Your task to perform on an android device: set an alarm Image 0: 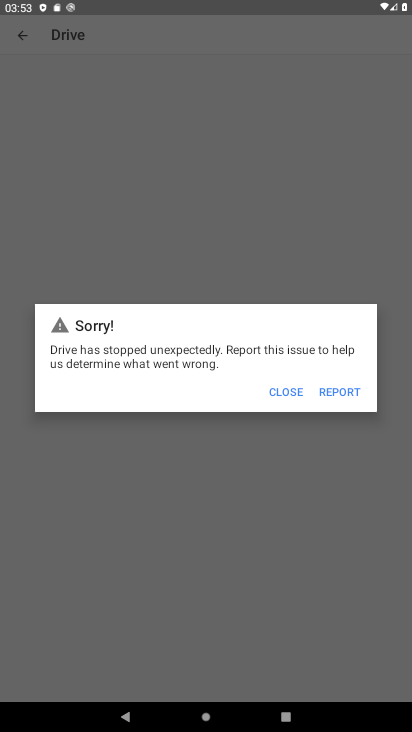
Step 0: press home button
Your task to perform on an android device: set an alarm Image 1: 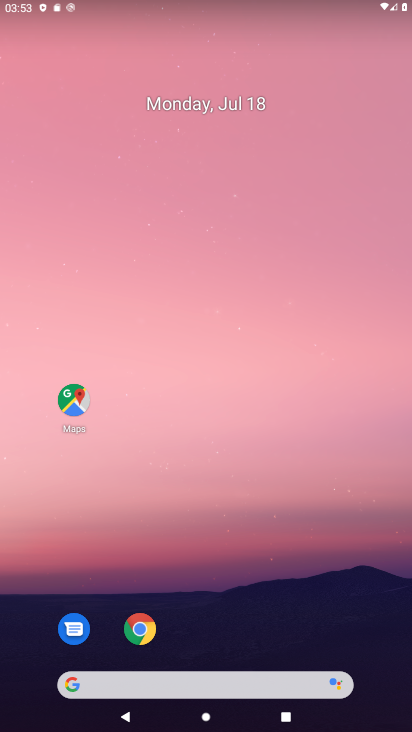
Step 1: drag from (366, 680) to (295, 26)
Your task to perform on an android device: set an alarm Image 2: 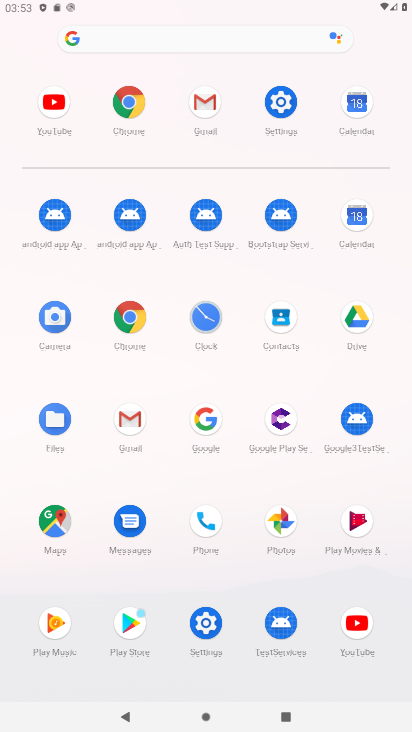
Step 2: click (209, 319)
Your task to perform on an android device: set an alarm Image 3: 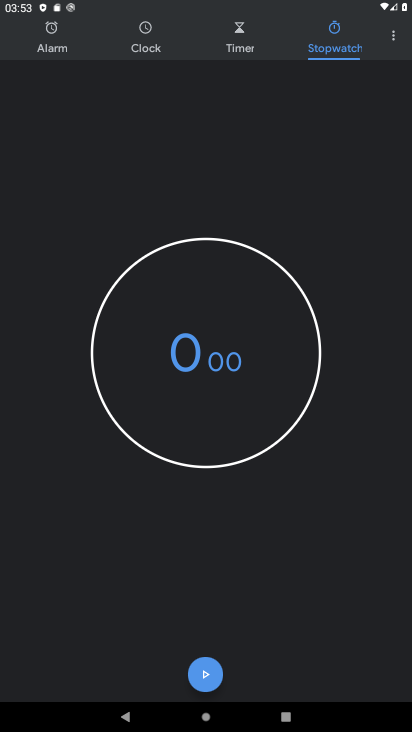
Step 3: click (60, 42)
Your task to perform on an android device: set an alarm Image 4: 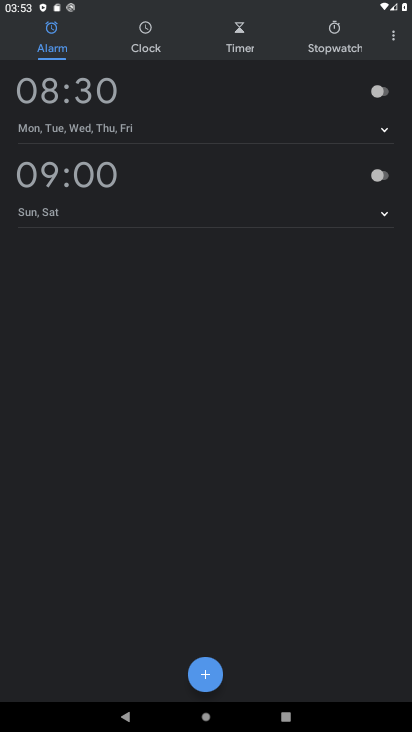
Step 4: click (387, 86)
Your task to perform on an android device: set an alarm Image 5: 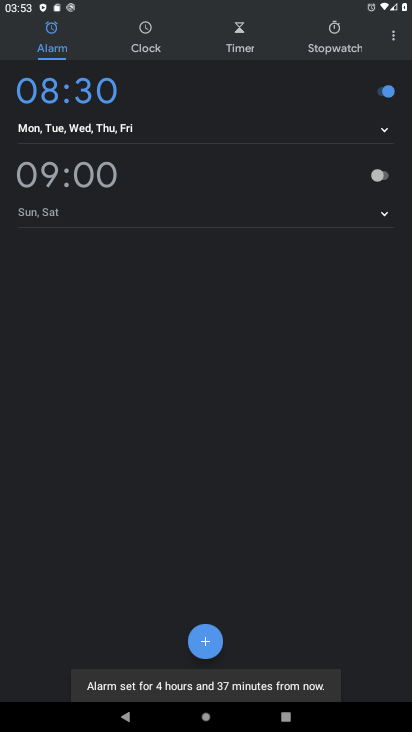
Step 5: task complete